Your task to perform on an android device: refresh tabs in the chrome app Image 0: 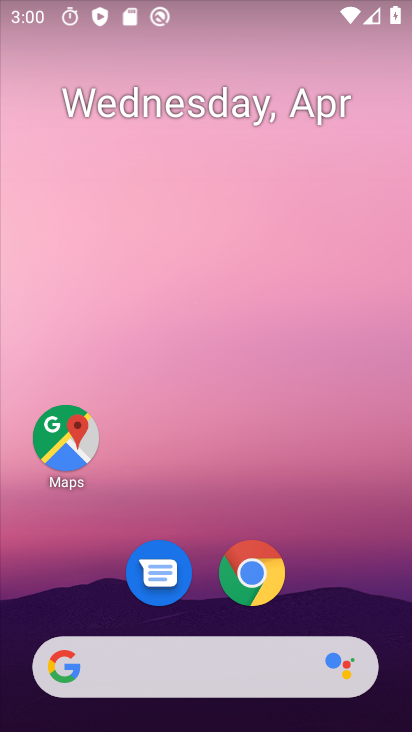
Step 0: click (255, 568)
Your task to perform on an android device: refresh tabs in the chrome app Image 1: 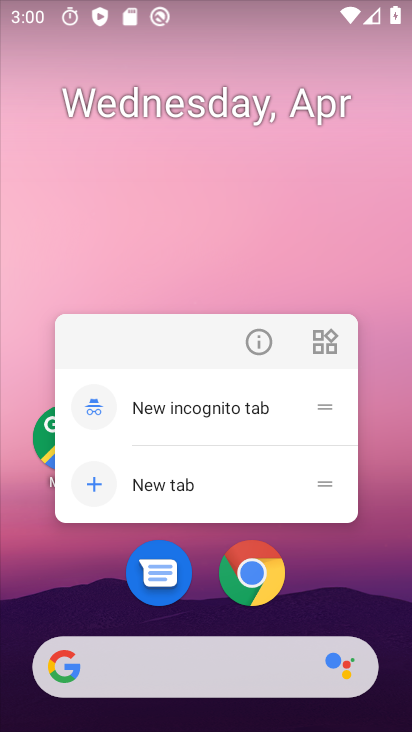
Step 1: click (255, 568)
Your task to perform on an android device: refresh tabs in the chrome app Image 2: 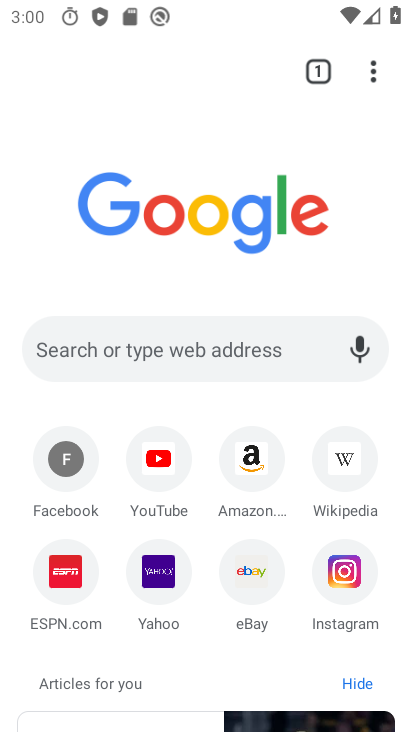
Step 2: click (371, 80)
Your task to perform on an android device: refresh tabs in the chrome app Image 3: 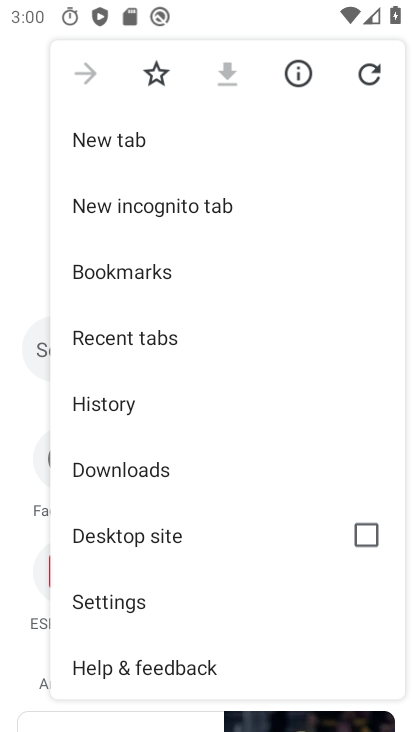
Step 3: click (369, 72)
Your task to perform on an android device: refresh tabs in the chrome app Image 4: 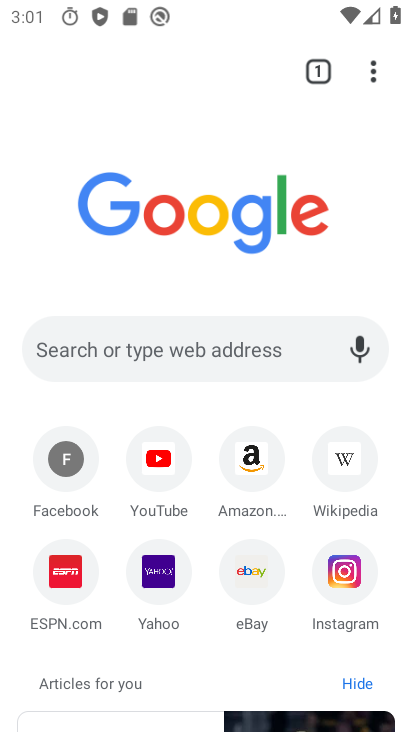
Step 4: task complete